Your task to perform on an android device: toggle priority inbox in the gmail app Image 0: 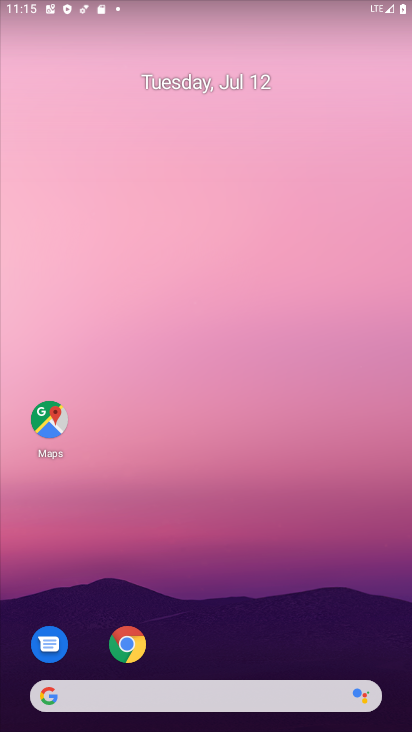
Step 0: drag from (195, 679) to (374, 245)
Your task to perform on an android device: toggle priority inbox in the gmail app Image 1: 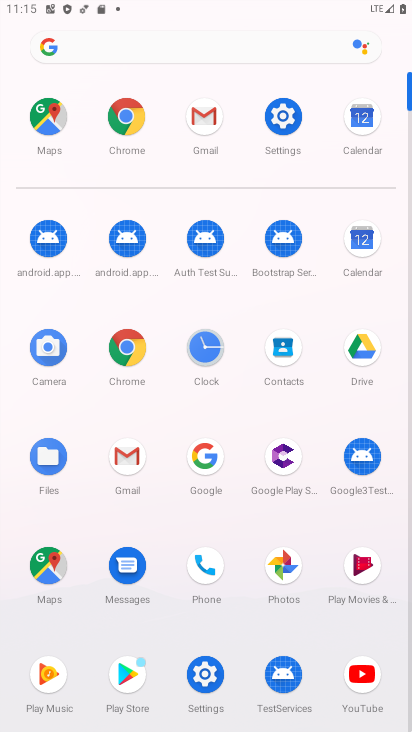
Step 1: click (206, 119)
Your task to perform on an android device: toggle priority inbox in the gmail app Image 2: 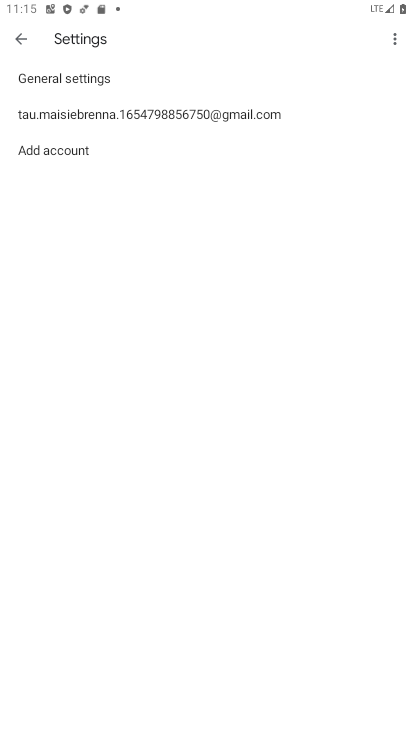
Step 2: click (54, 115)
Your task to perform on an android device: toggle priority inbox in the gmail app Image 3: 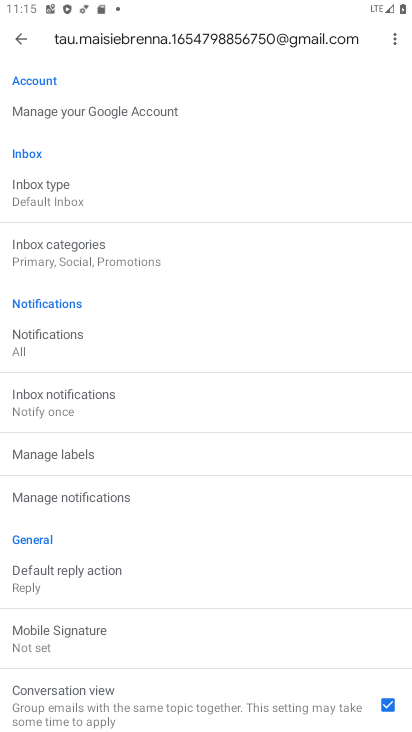
Step 3: click (60, 198)
Your task to perform on an android device: toggle priority inbox in the gmail app Image 4: 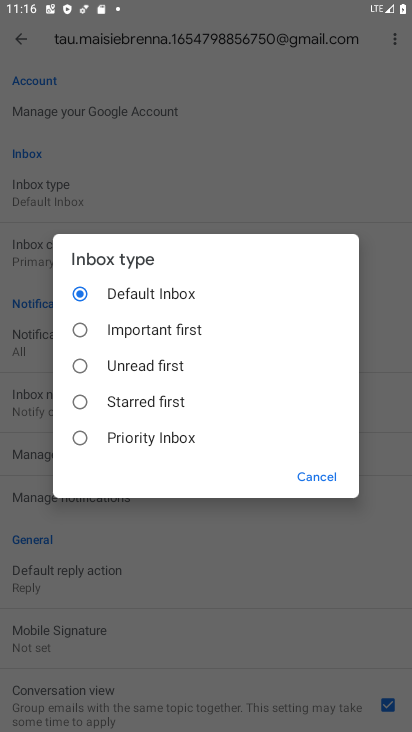
Step 4: click (155, 430)
Your task to perform on an android device: toggle priority inbox in the gmail app Image 5: 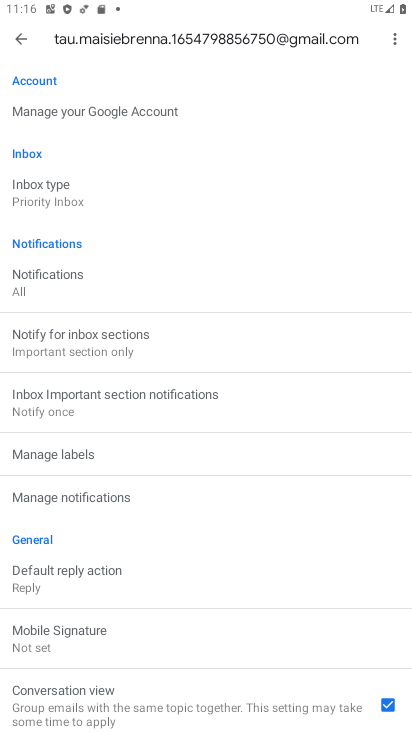
Step 5: task complete